Your task to perform on an android device: Open Chrome and go to settings Image 0: 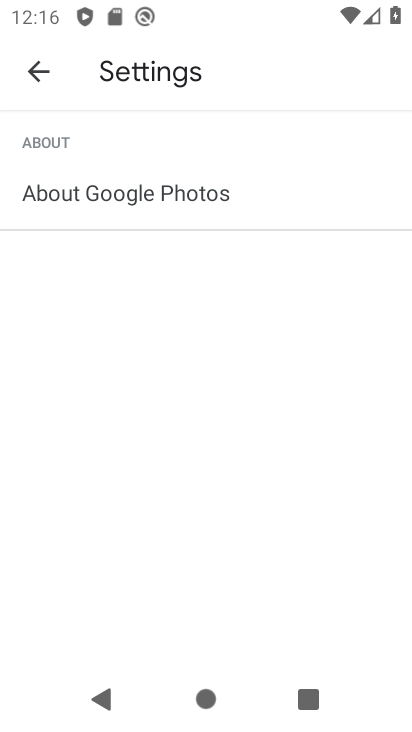
Step 0: press home button
Your task to perform on an android device: Open Chrome and go to settings Image 1: 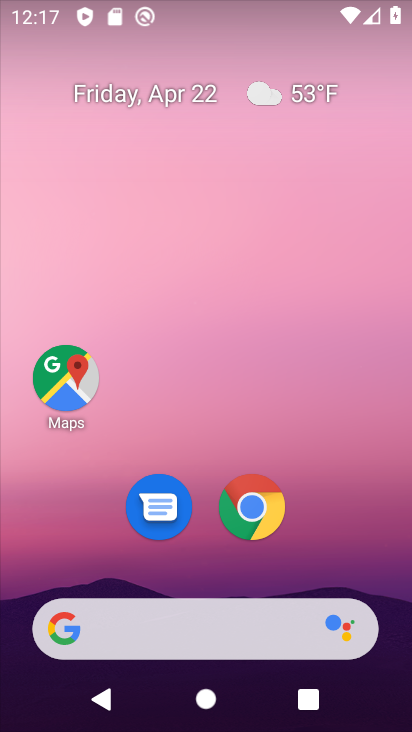
Step 1: drag from (238, 498) to (199, 217)
Your task to perform on an android device: Open Chrome and go to settings Image 2: 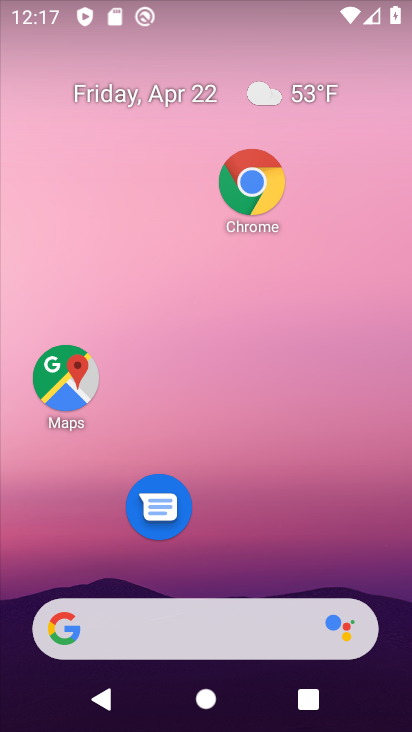
Step 2: click (232, 187)
Your task to perform on an android device: Open Chrome and go to settings Image 3: 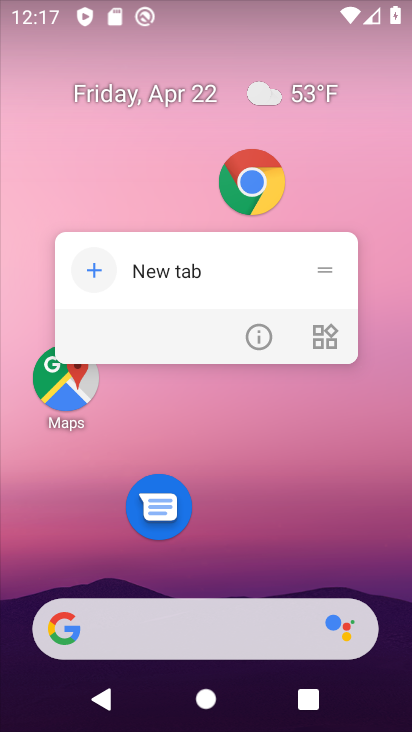
Step 3: click (255, 182)
Your task to perform on an android device: Open Chrome and go to settings Image 4: 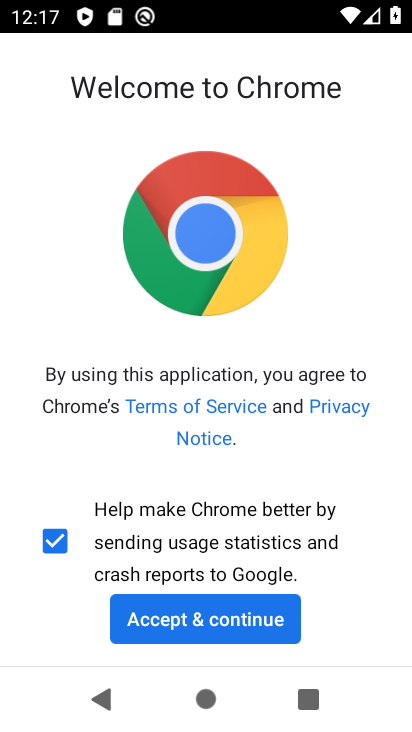
Step 4: click (265, 612)
Your task to perform on an android device: Open Chrome and go to settings Image 5: 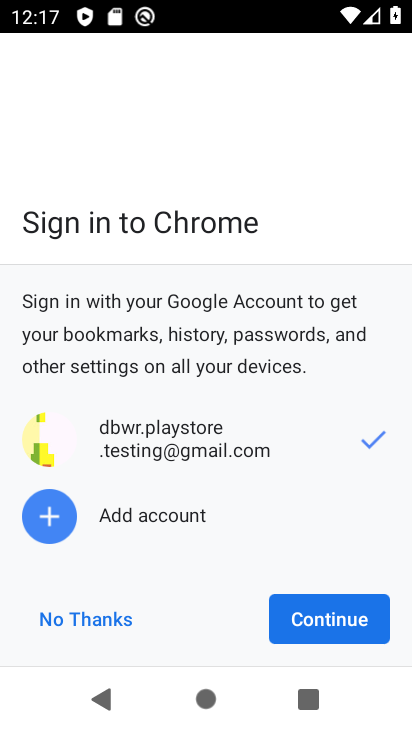
Step 5: click (328, 618)
Your task to perform on an android device: Open Chrome and go to settings Image 6: 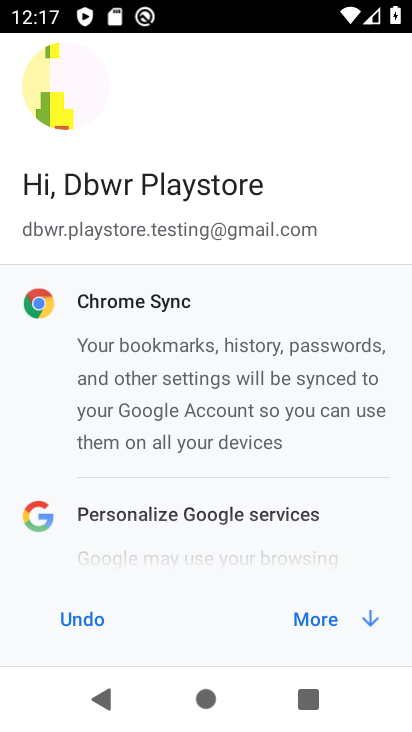
Step 6: click (315, 616)
Your task to perform on an android device: Open Chrome and go to settings Image 7: 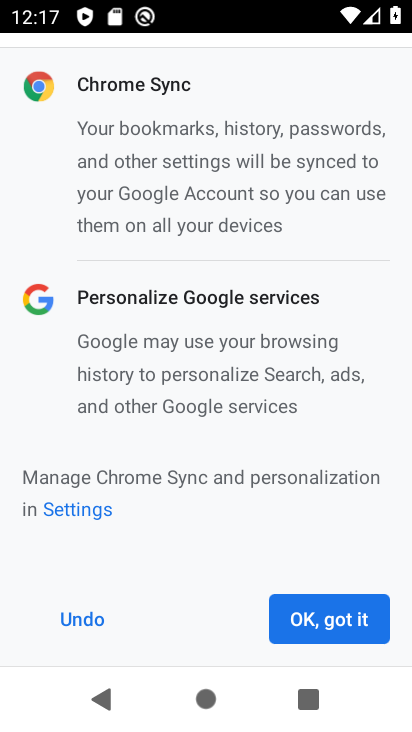
Step 7: click (309, 615)
Your task to perform on an android device: Open Chrome and go to settings Image 8: 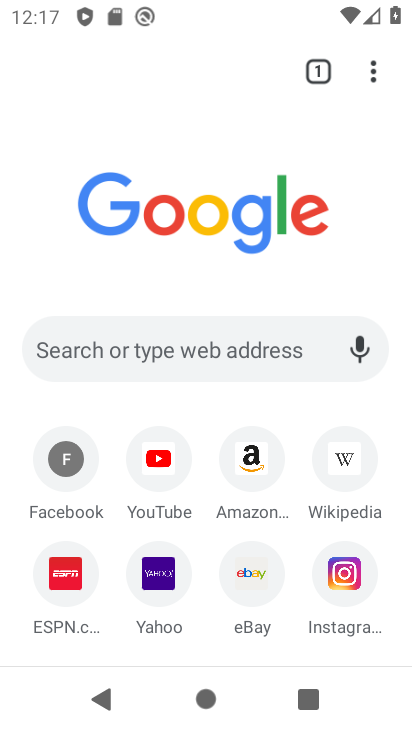
Step 8: click (381, 74)
Your task to perform on an android device: Open Chrome and go to settings Image 9: 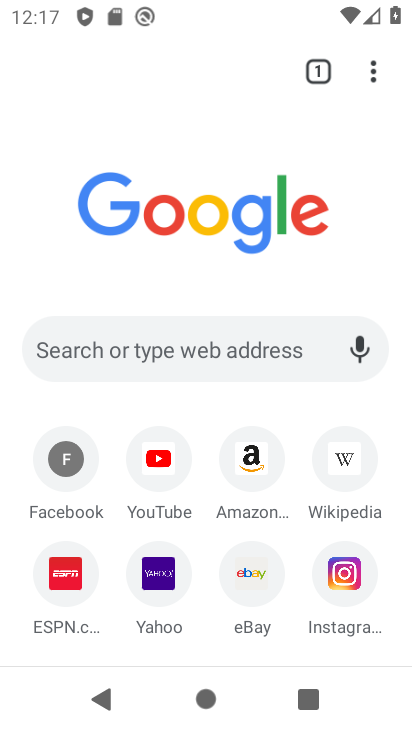
Step 9: task complete